Your task to perform on an android device: star an email in the gmail app Image 0: 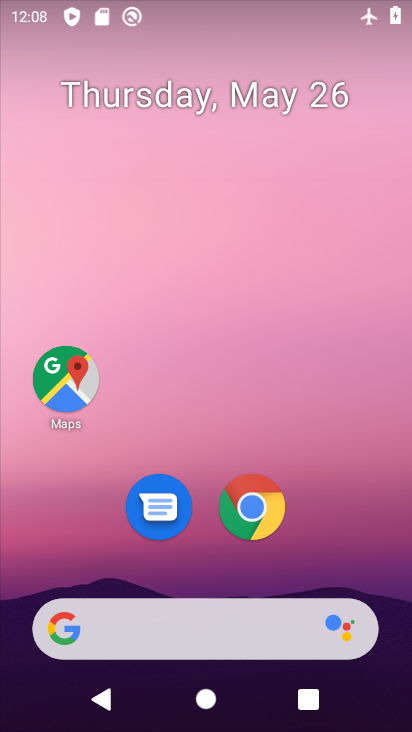
Step 0: drag from (194, 562) to (210, 166)
Your task to perform on an android device: star an email in the gmail app Image 1: 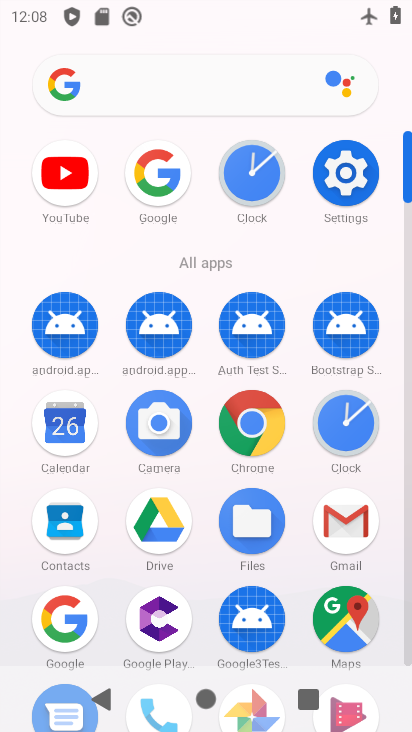
Step 1: click (348, 508)
Your task to perform on an android device: star an email in the gmail app Image 2: 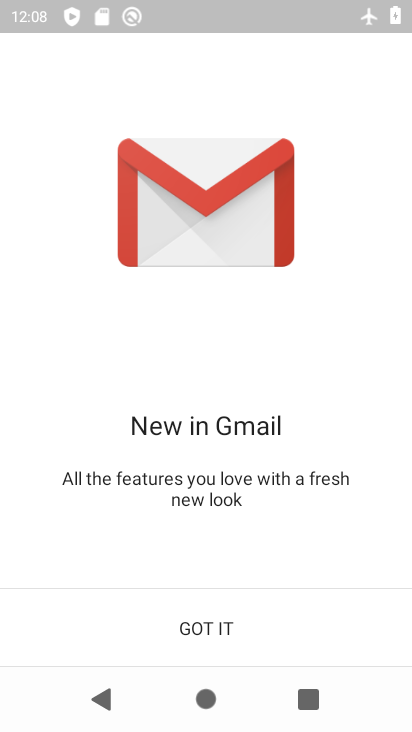
Step 2: click (207, 619)
Your task to perform on an android device: star an email in the gmail app Image 3: 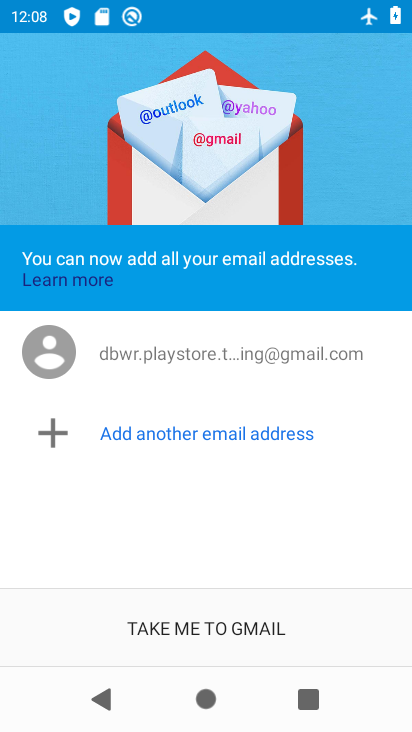
Step 3: click (209, 619)
Your task to perform on an android device: star an email in the gmail app Image 4: 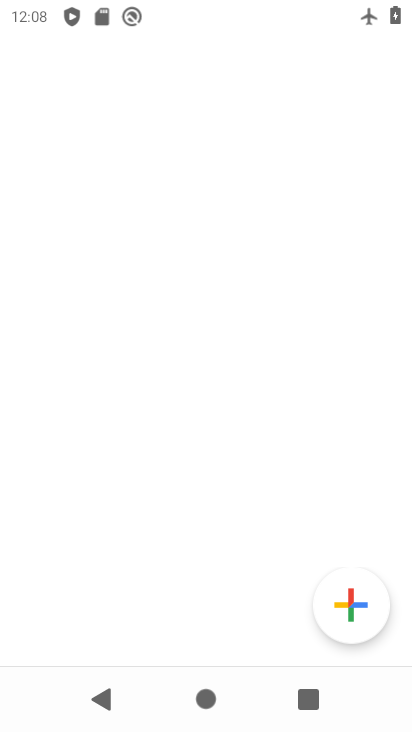
Step 4: click (211, 617)
Your task to perform on an android device: star an email in the gmail app Image 5: 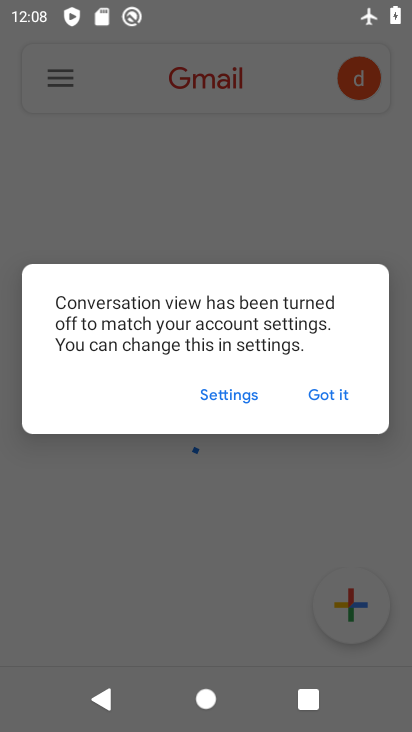
Step 5: click (320, 395)
Your task to perform on an android device: star an email in the gmail app Image 6: 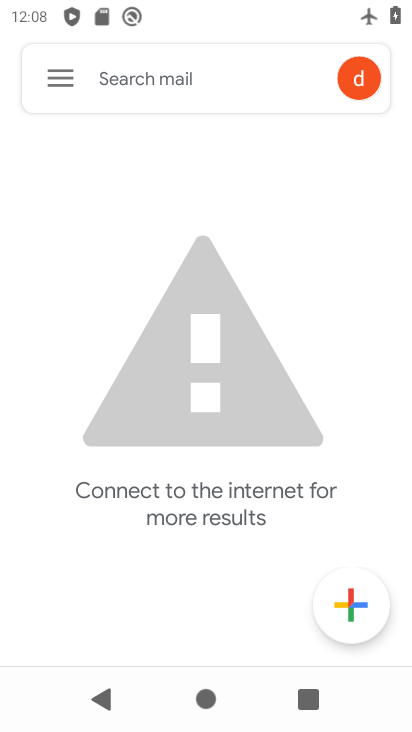
Step 6: click (63, 69)
Your task to perform on an android device: star an email in the gmail app Image 7: 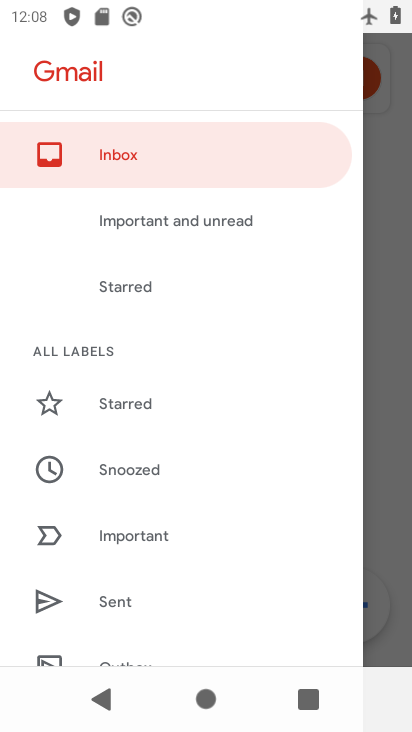
Step 7: drag from (175, 533) to (191, 384)
Your task to perform on an android device: star an email in the gmail app Image 8: 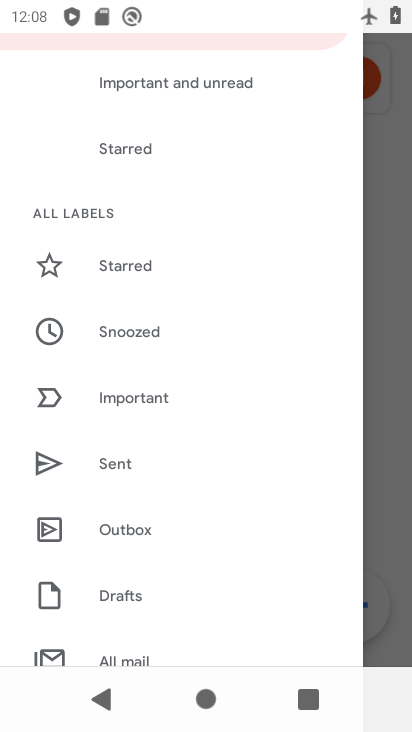
Step 8: drag from (140, 648) to (219, 383)
Your task to perform on an android device: star an email in the gmail app Image 9: 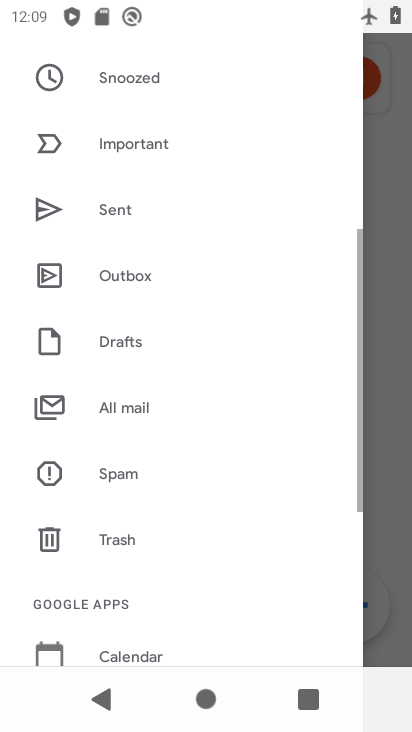
Step 9: drag from (177, 228) to (202, 530)
Your task to perform on an android device: star an email in the gmail app Image 10: 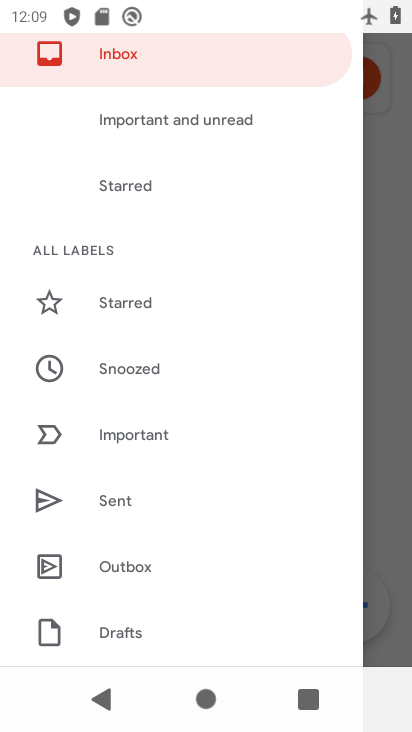
Step 10: drag from (172, 215) to (223, 548)
Your task to perform on an android device: star an email in the gmail app Image 11: 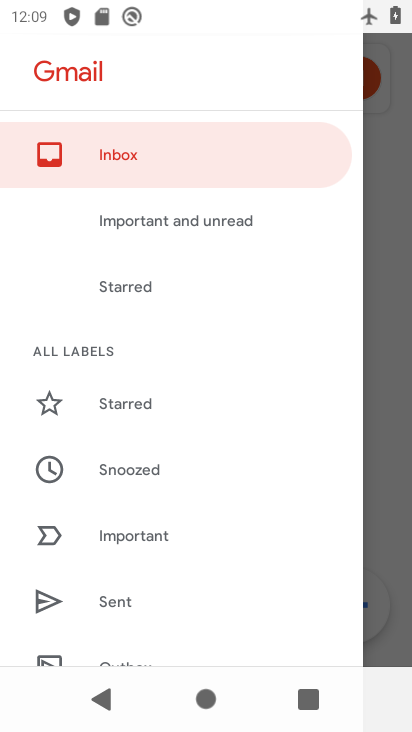
Step 11: drag from (177, 551) to (204, 210)
Your task to perform on an android device: star an email in the gmail app Image 12: 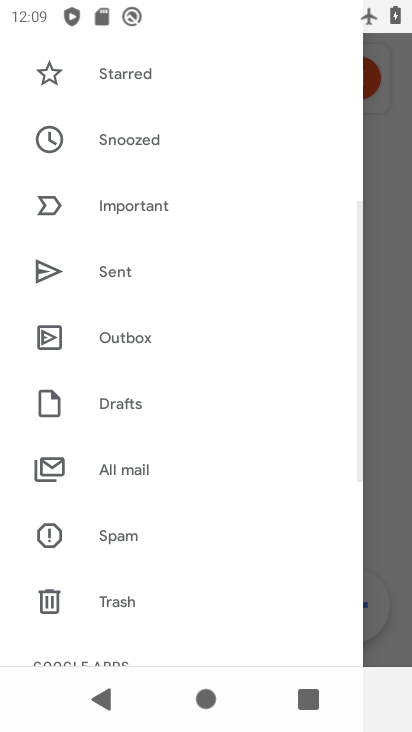
Step 12: click (110, 453)
Your task to perform on an android device: star an email in the gmail app Image 13: 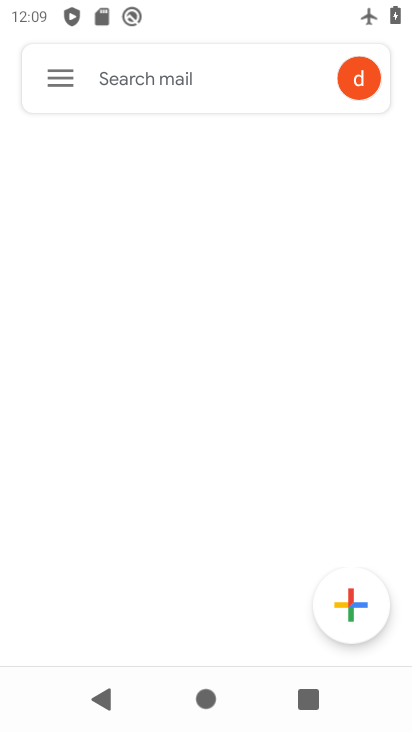
Step 13: task complete